Your task to perform on an android device: toggle show notifications on the lock screen Image 0: 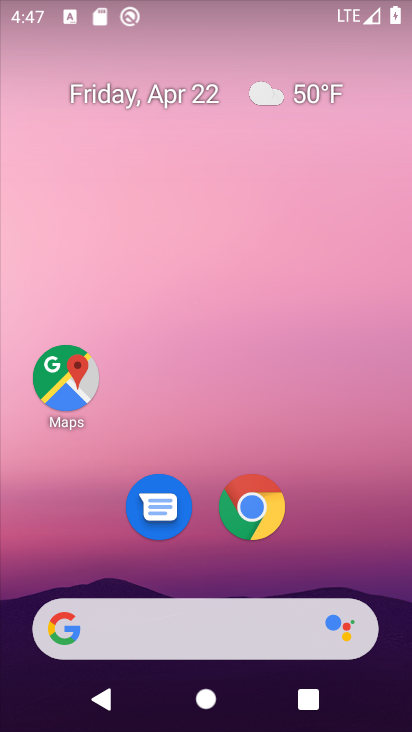
Step 0: drag from (394, 599) to (351, 48)
Your task to perform on an android device: toggle show notifications on the lock screen Image 1: 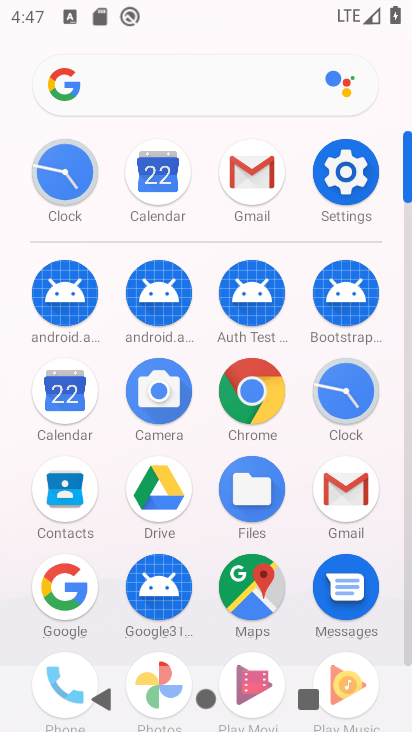
Step 1: click (407, 647)
Your task to perform on an android device: toggle show notifications on the lock screen Image 2: 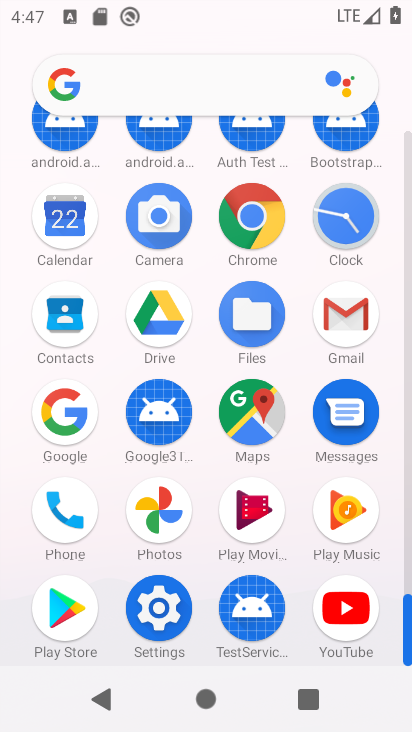
Step 2: click (157, 608)
Your task to perform on an android device: toggle show notifications on the lock screen Image 3: 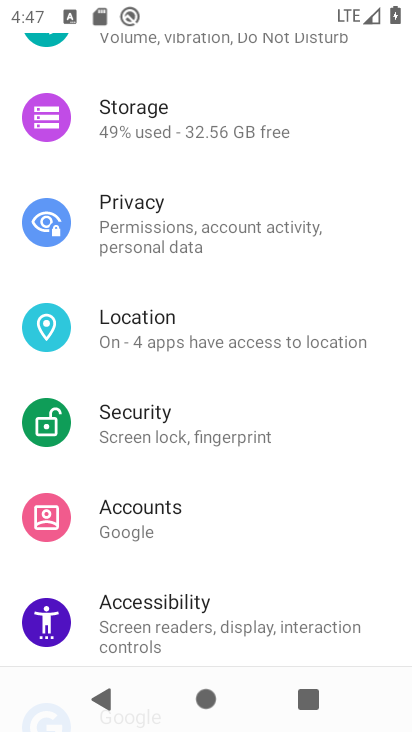
Step 3: drag from (384, 180) to (366, 472)
Your task to perform on an android device: toggle show notifications on the lock screen Image 4: 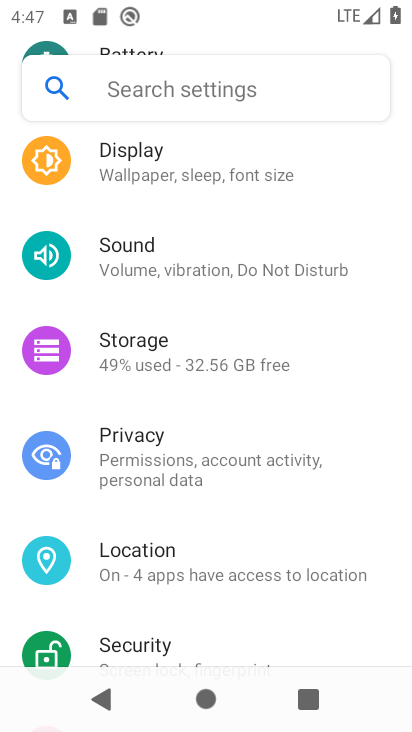
Step 4: drag from (371, 236) to (360, 449)
Your task to perform on an android device: toggle show notifications on the lock screen Image 5: 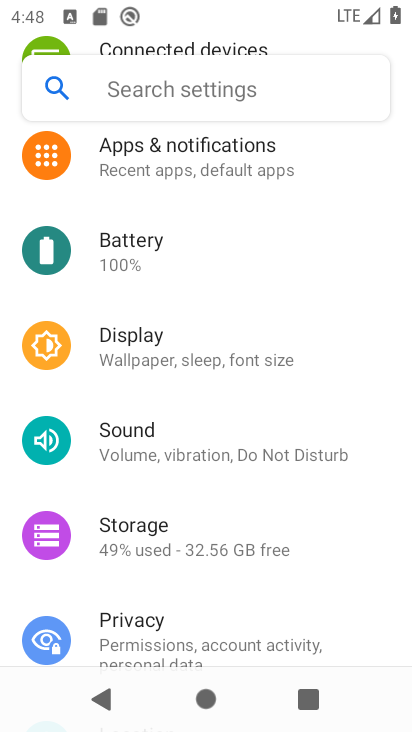
Step 5: drag from (342, 278) to (343, 602)
Your task to perform on an android device: toggle show notifications on the lock screen Image 6: 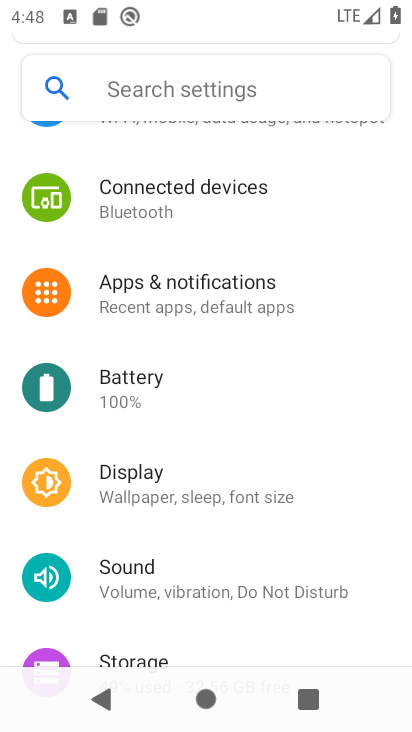
Step 6: click (147, 285)
Your task to perform on an android device: toggle show notifications on the lock screen Image 7: 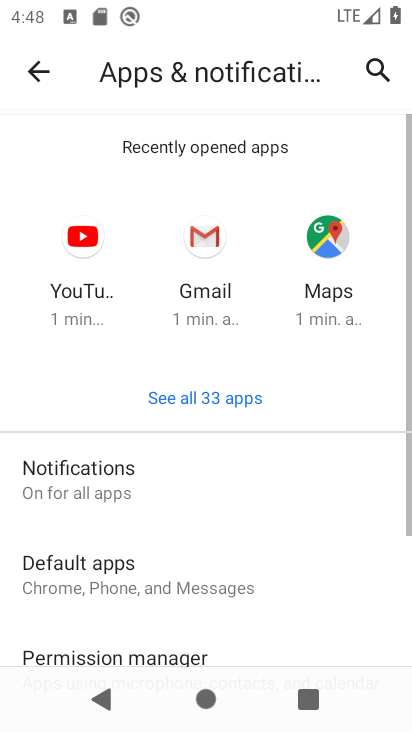
Step 7: click (96, 468)
Your task to perform on an android device: toggle show notifications on the lock screen Image 8: 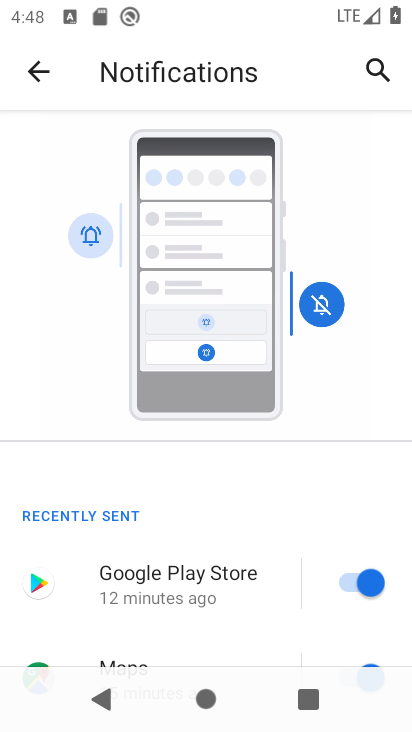
Step 8: drag from (309, 606) to (285, 221)
Your task to perform on an android device: toggle show notifications on the lock screen Image 9: 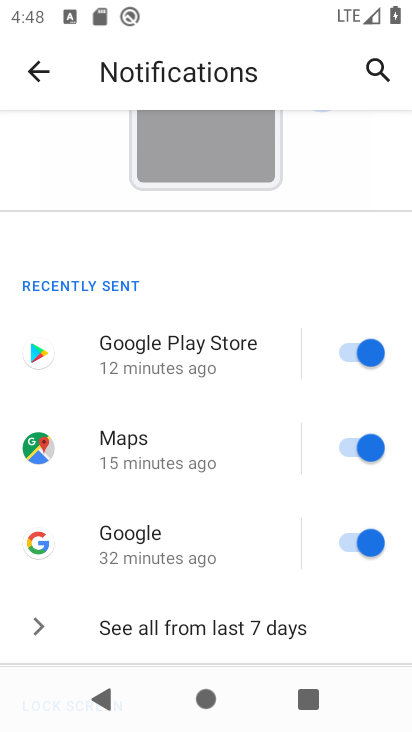
Step 9: drag from (275, 554) to (271, 189)
Your task to perform on an android device: toggle show notifications on the lock screen Image 10: 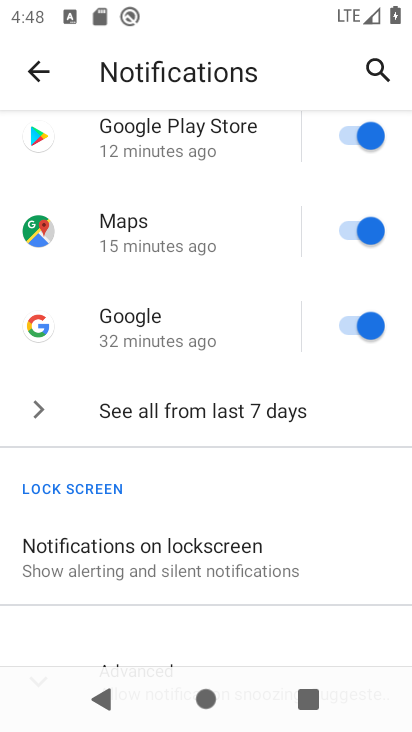
Step 10: drag from (242, 561) to (272, 189)
Your task to perform on an android device: toggle show notifications on the lock screen Image 11: 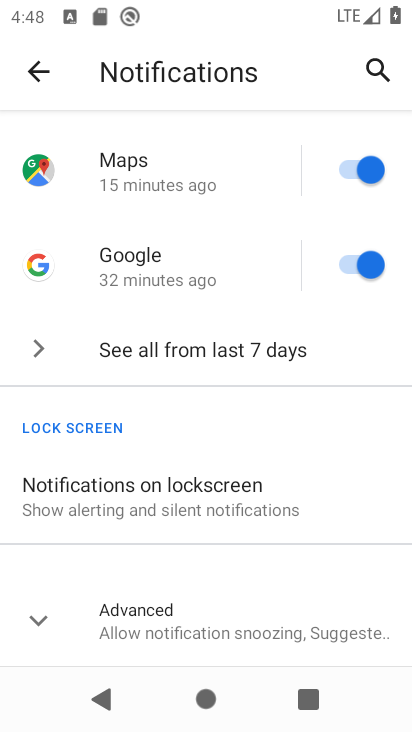
Step 11: click (97, 495)
Your task to perform on an android device: toggle show notifications on the lock screen Image 12: 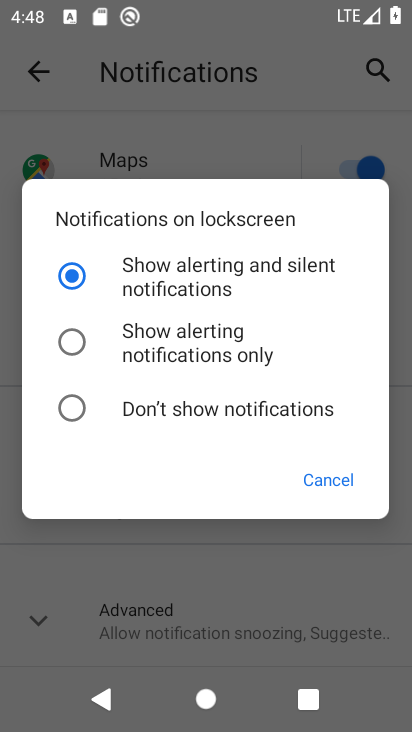
Step 12: click (77, 342)
Your task to perform on an android device: toggle show notifications on the lock screen Image 13: 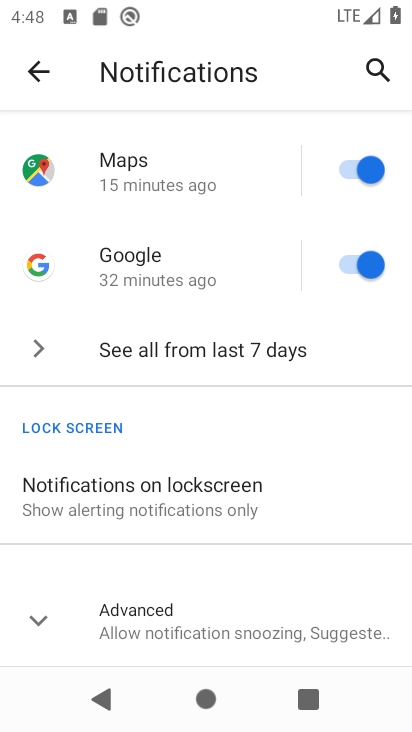
Step 13: task complete